Your task to perform on an android device: toggle show notifications on the lock screen Image 0: 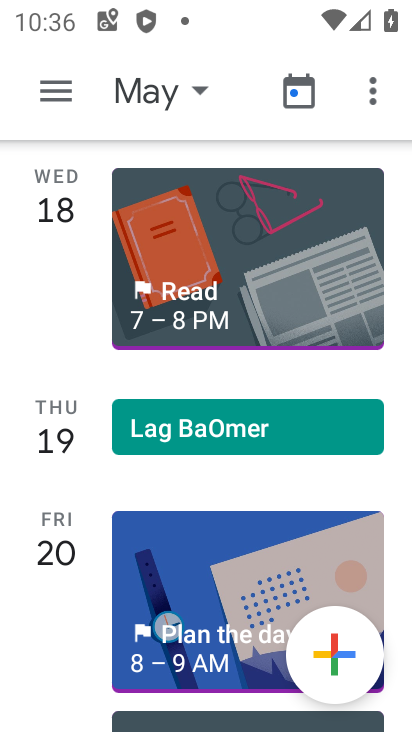
Step 0: press home button
Your task to perform on an android device: toggle show notifications on the lock screen Image 1: 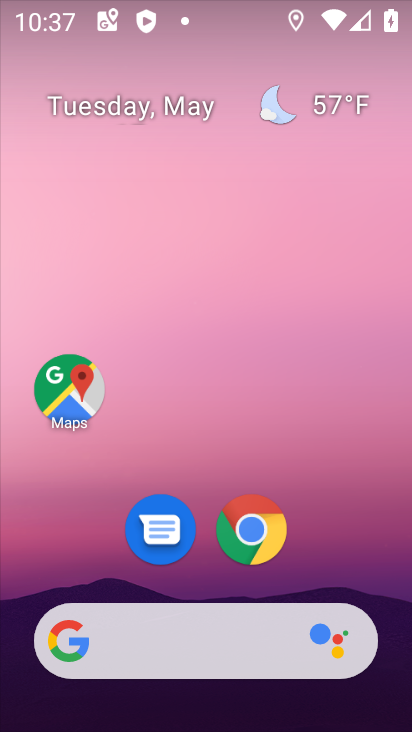
Step 1: drag from (224, 579) to (395, 273)
Your task to perform on an android device: toggle show notifications on the lock screen Image 2: 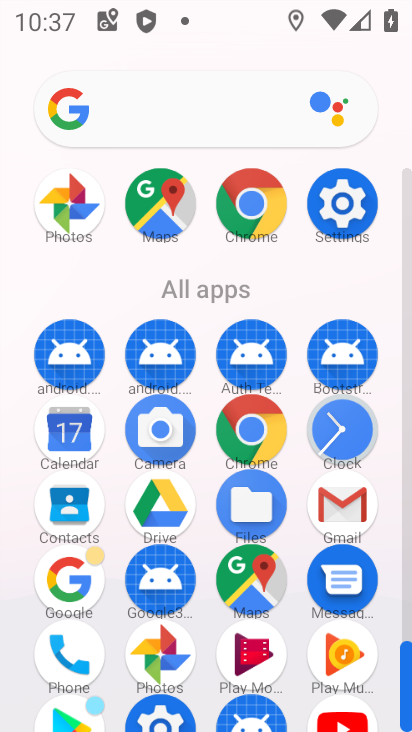
Step 2: click (341, 193)
Your task to perform on an android device: toggle show notifications on the lock screen Image 3: 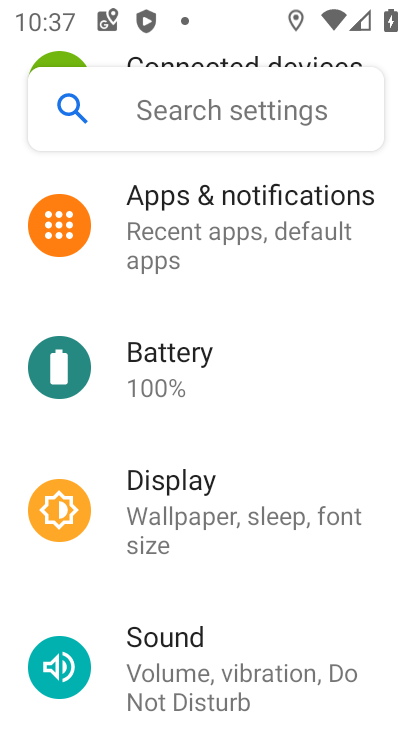
Step 3: click (250, 199)
Your task to perform on an android device: toggle show notifications on the lock screen Image 4: 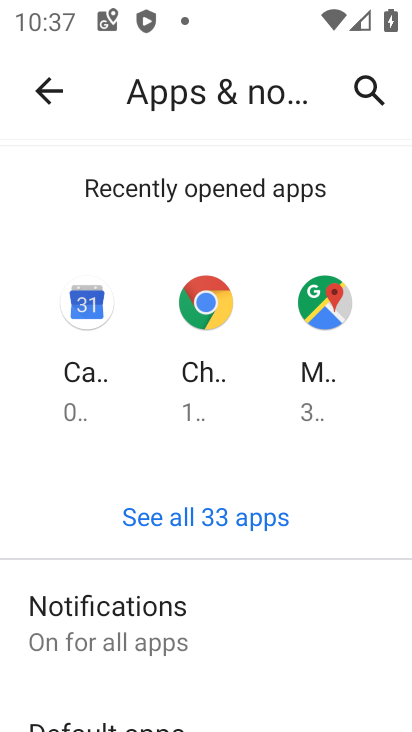
Step 4: click (192, 621)
Your task to perform on an android device: toggle show notifications on the lock screen Image 5: 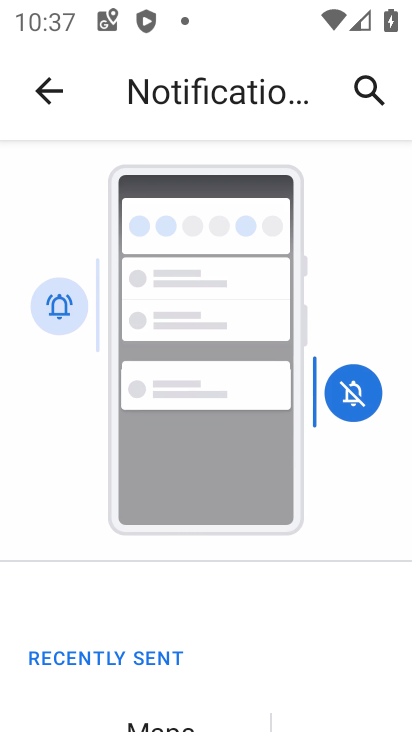
Step 5: drag from (239, 654) to (195, 245)
Your task to perform on an android device: toggle show notifications on the lock screen Image 6: 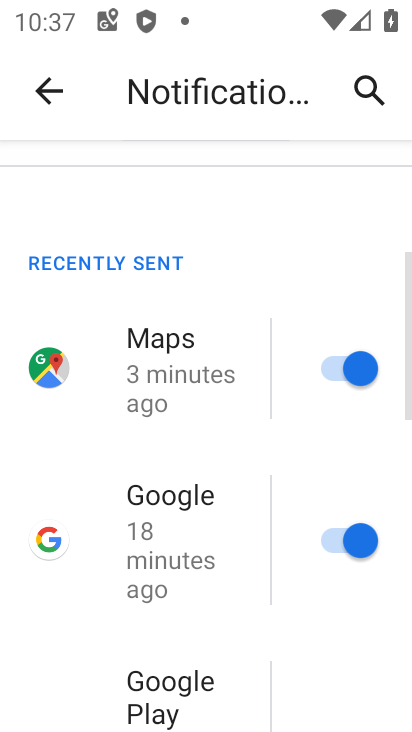
Step 6: drag from (112, 678) to (117, 3)
Your task to perform on an android device: toggle show notifications on the lock screen Image 7: 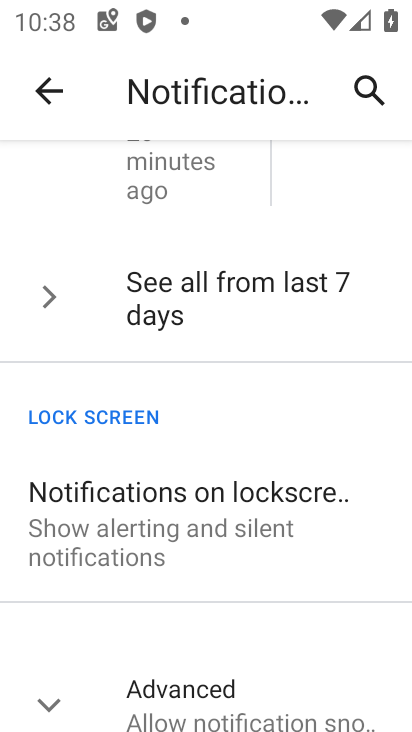
Step 7: click (95, 532)
Your task to perform on an android device: toggle show notifications on the lock screen Image 8: 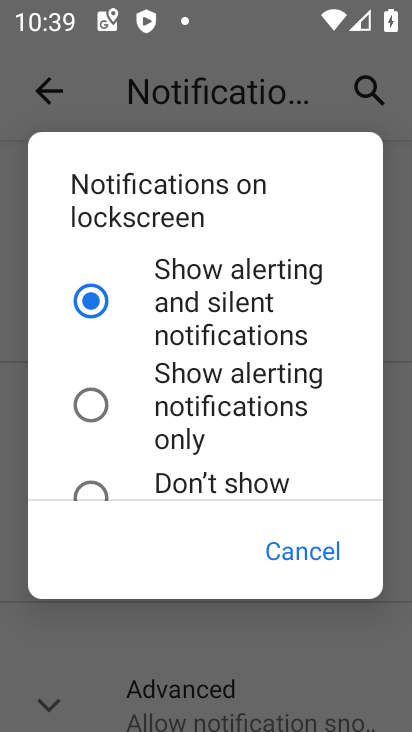
Step 8: task complete